Your task to perform on an android device: What's the news in Indonesia? Image 0: 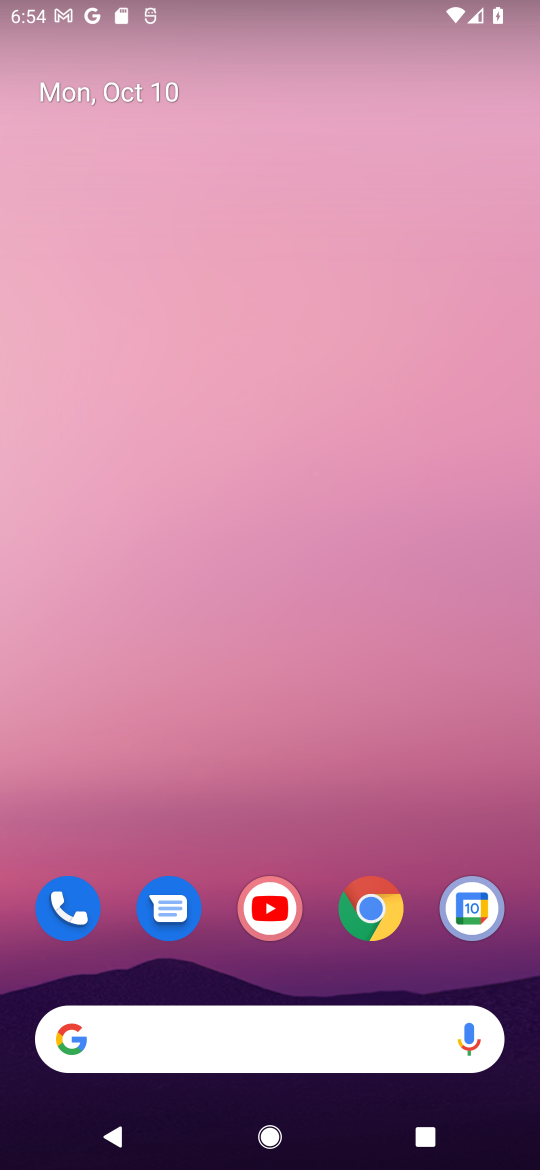
Step 0: drag from (210, 929) to (288, 85)
Your task to perform on an android device: What's the news in Indonesia? Image 1: 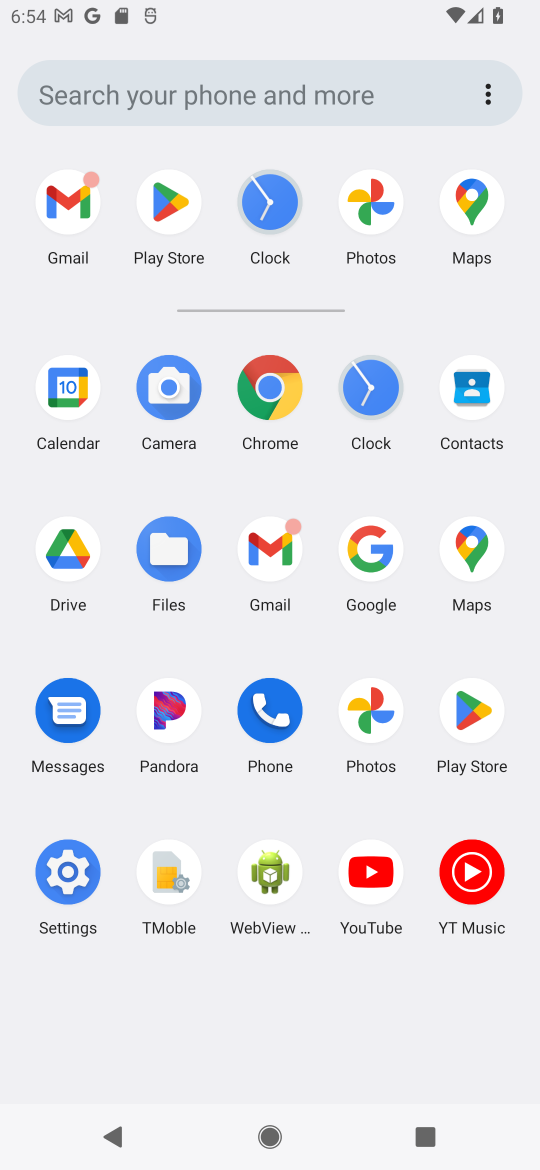
Step 1: click (270, 391)
Your task to perform on an android device: What's the news in Indonesia? Image 2: 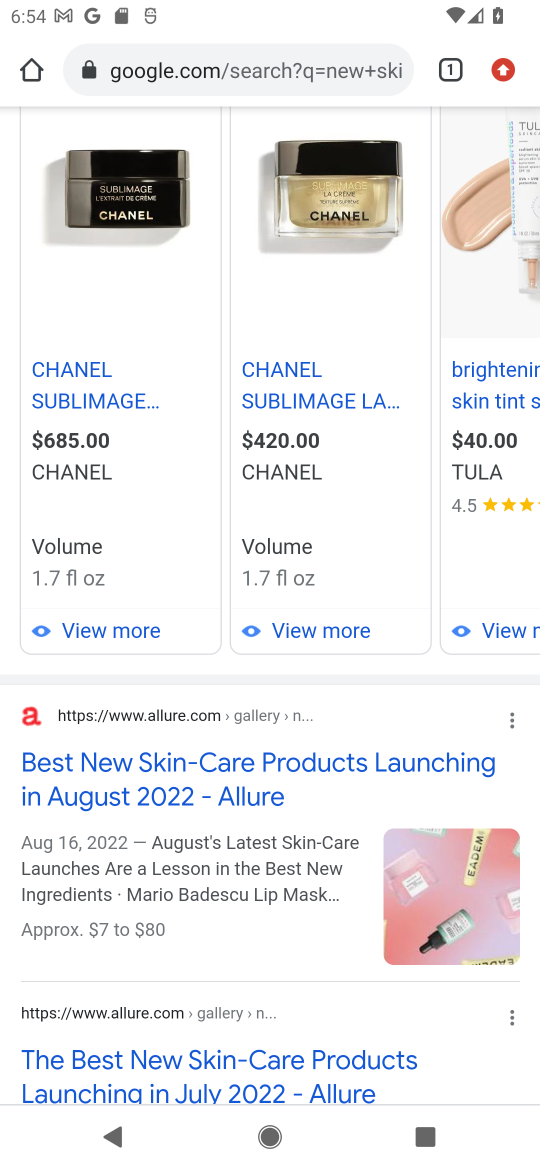
Step 2: click (260, 76)
Your task to perform on an android device: What's the news in Indonesia? Image 3: 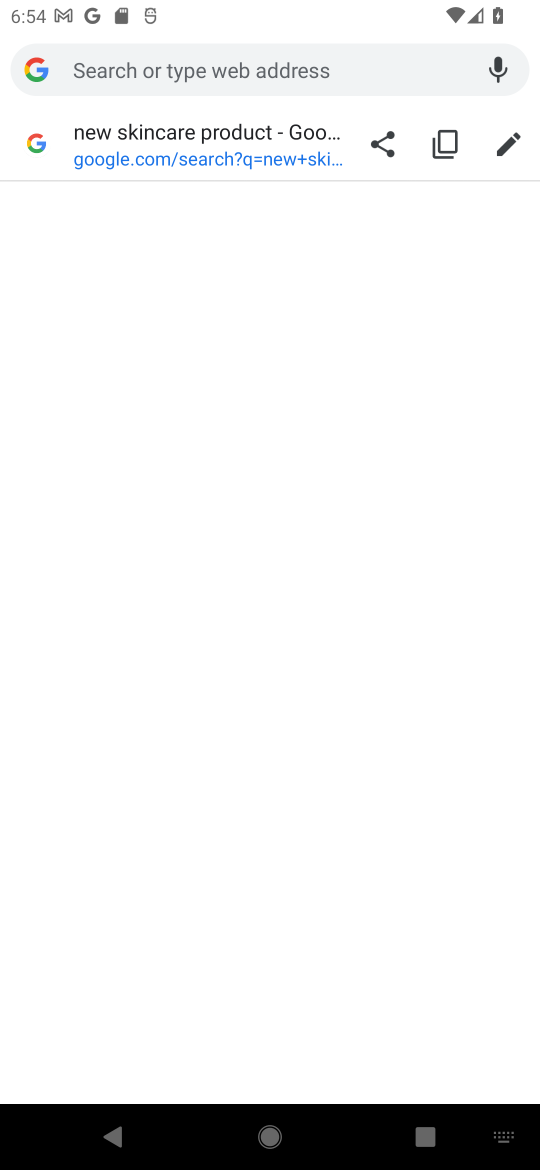
Step 3: type "What's the news in Indonesia?"
Your task to perform on an android device: What's the news in Indonesia? Image 4: 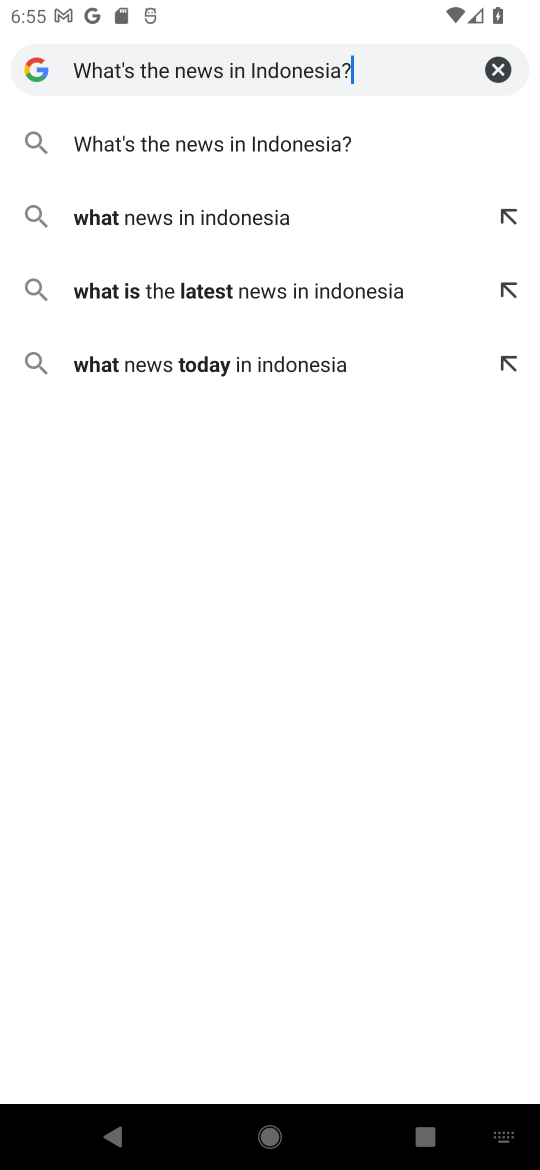
Step 4: press enter
Your task to perform on an android device: What's the news in Indonesia? Image 5: 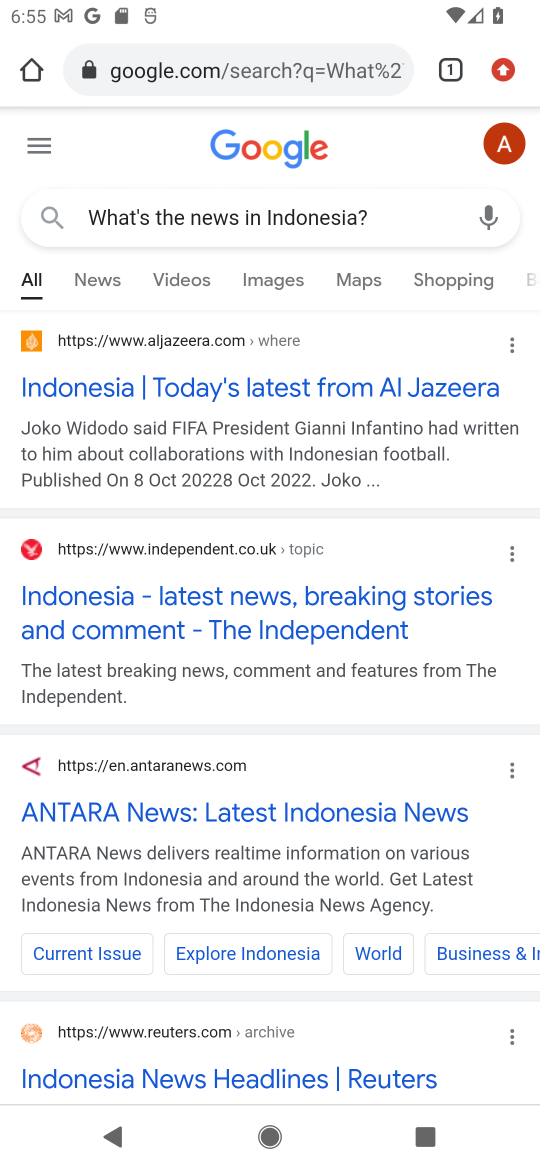
Step 5: click (326, 384)
Your task to perform on an android device: What's the news in Indonesia? Image 6: 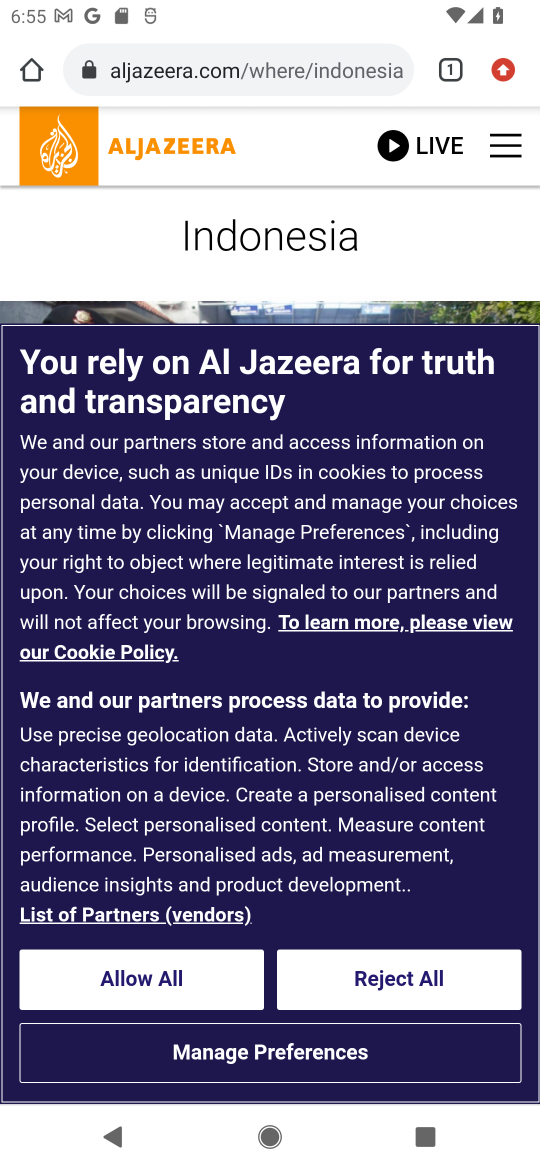
Step 6: click (145, 958)
Your task to perform on an android device: What's the news in Indonesia? Image 7: 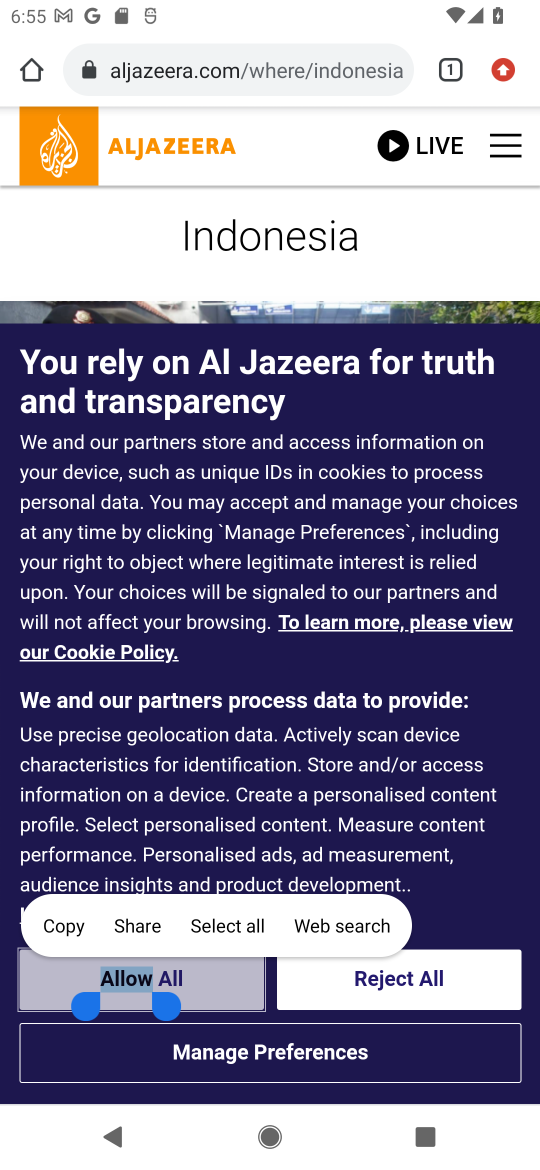
Step 7: click (186, 983)
Your task to perform on an android device: What's the news in Indonesia? Image 8: 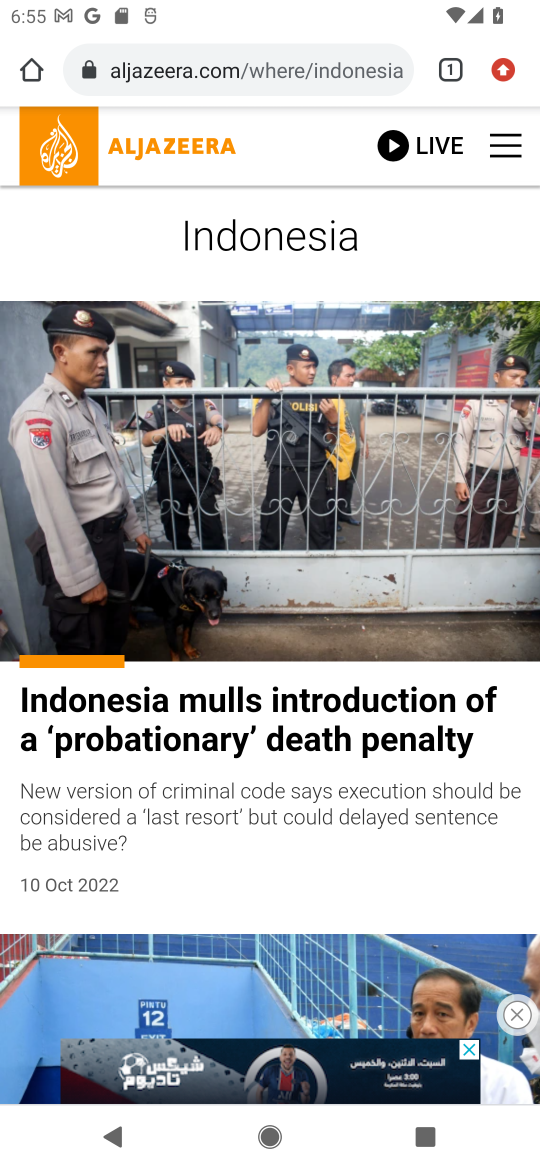
Step 8: task complete